Your task to perform on an android device: Go to privacy settings Image 0: 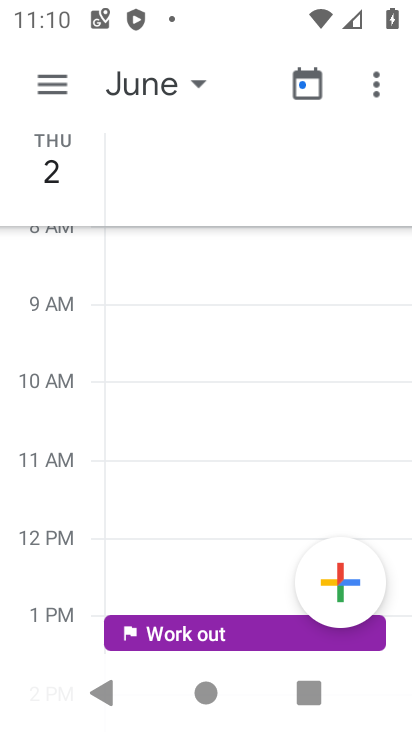
Step 0: press home button
Your task to perform on an android device: Go to privacy settings Image 1: 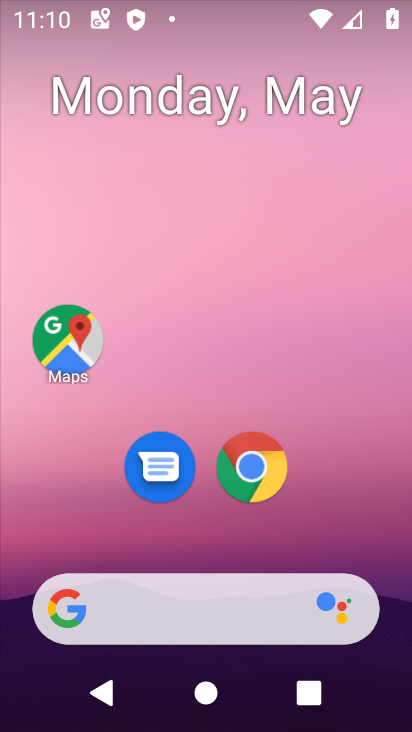
Step 1: drag from (212, 451) to (326, 15)
Your task to perform on an android device: Go to privacy settings Image 2: 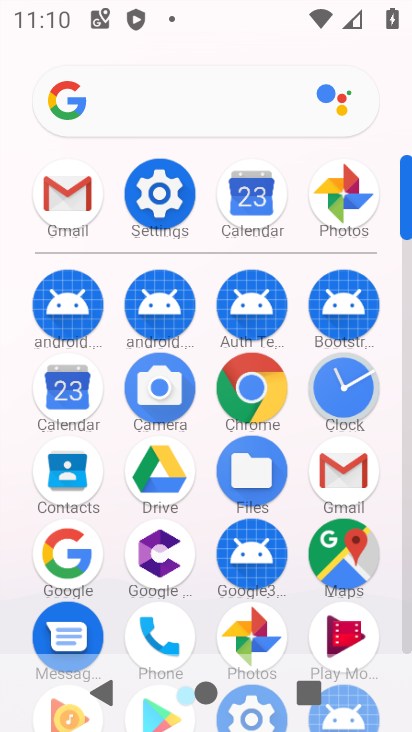
Step 2: click (162, 201)
Your task to perform on an android device: Go to privacy settings Image 3: 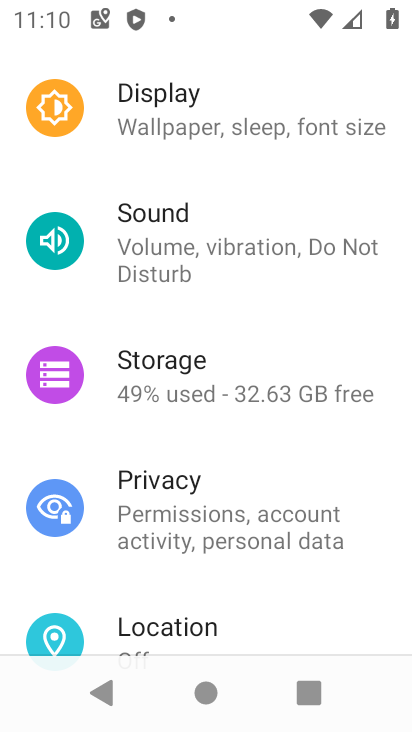
Step 3: click (231, 516)
Your task to perform on an android device: Go to privacy settings Image 4: 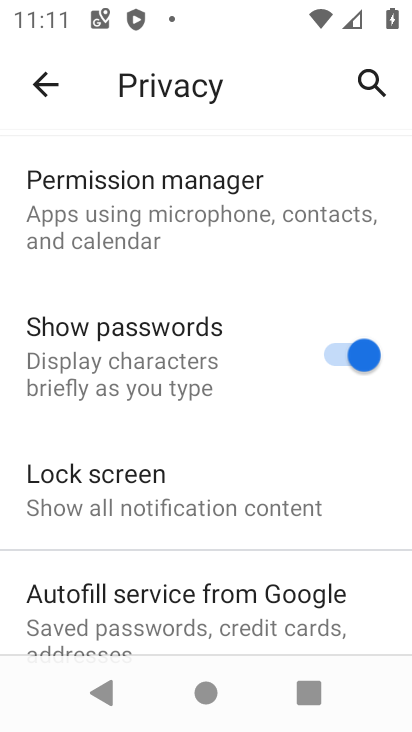
Step 4: task complete